Your task to perform on an android device: Search for seafood restaurants on Google Maps Image 0: 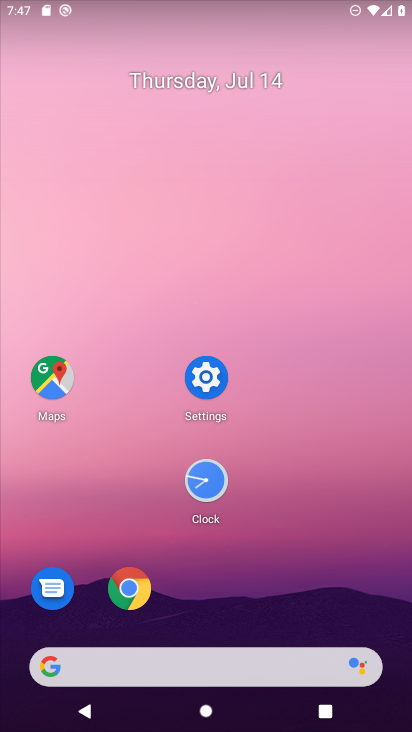
Step 0: click (58, 376)
Your task to perform on an android device: Search for seafood restaurants on Google Maps Image 1: 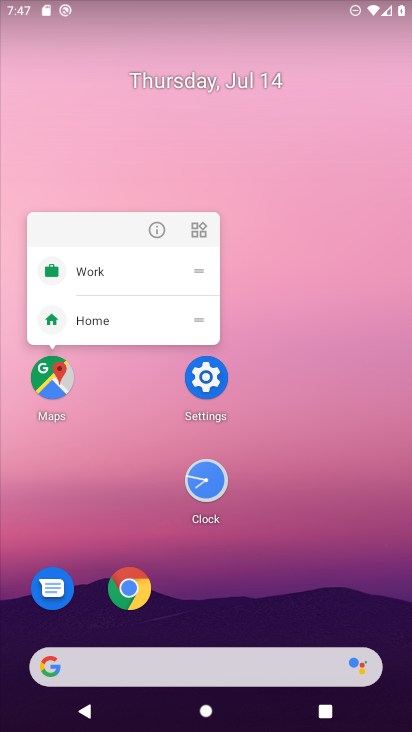
Step 1: click (52, 378)
Your task to perform on an android device: Search for seafood restaurants on Google Maps Image 2: 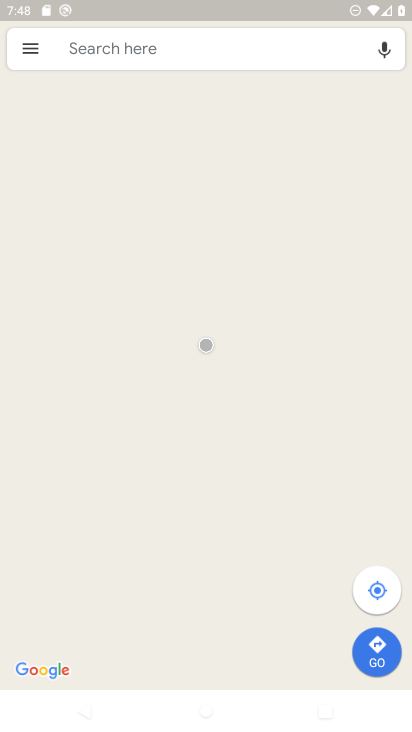
Step 2: click (138, 54)
Your task to perform on an android device: Search for seafood restaurants on Google Maps Image 3: 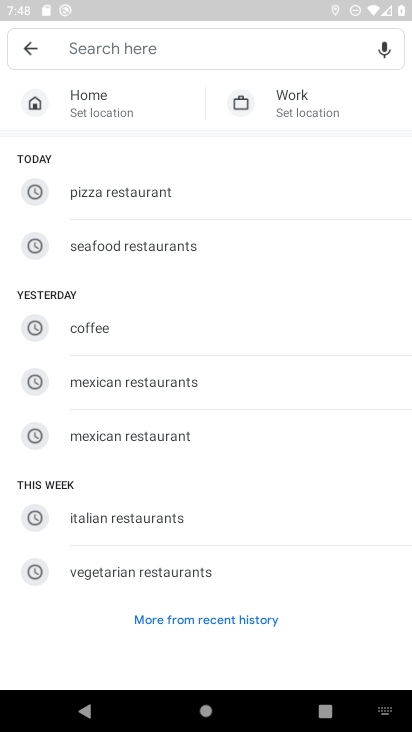
Step 3: type "seafood restaurants"
Your task to perform on an android device: Search for seafood restaurants on Google Maps Image 4: 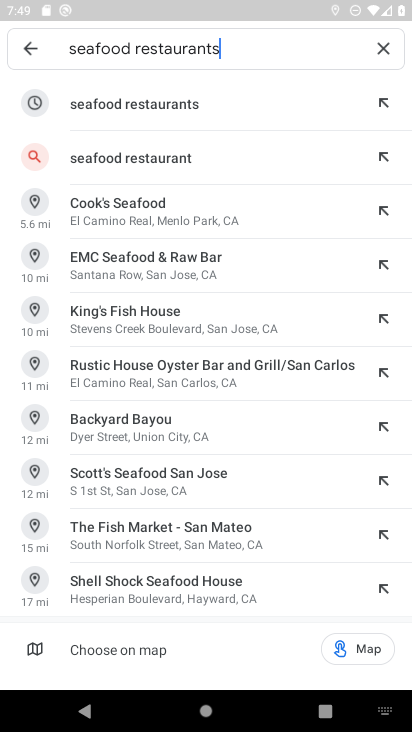
Step 4: click (147, 159)
Your task to perform on an android device: Search for seafood restaurants on Google Maps Image 5: 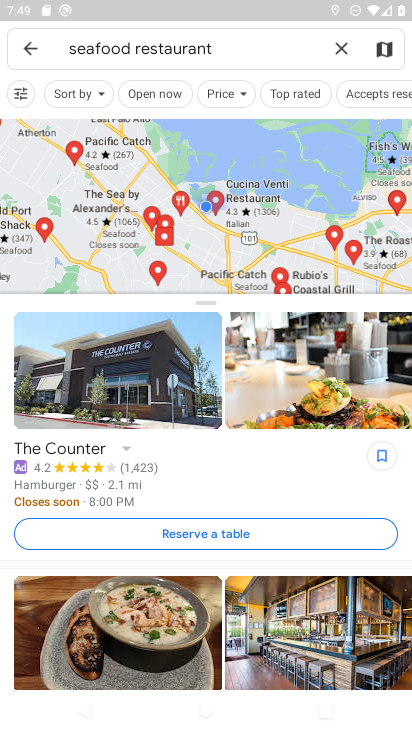
Step 5: task complete